Your task to perform on an android device: turn off improve location accuracy Image 0: 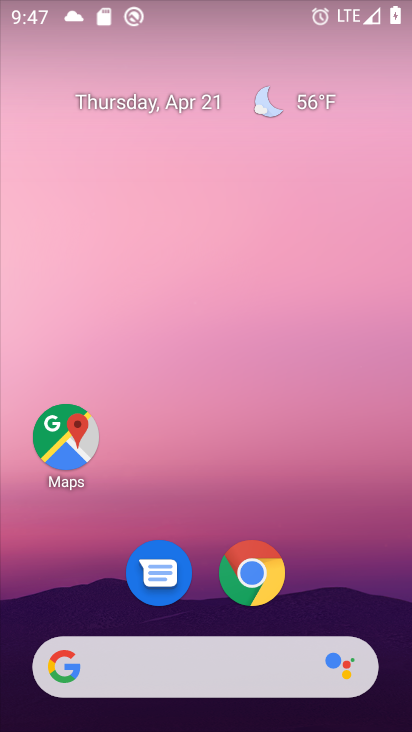
Step 0: drag from (196, 494) to (224, 4)
Your task to perform on an android device: turn off improve location accuracy Image 1: 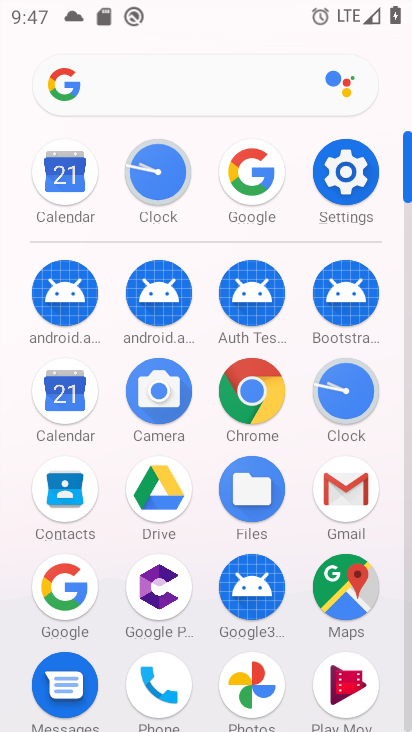
Step 1: click (349, 172)
Your task to perform on an android device: turn off improve location accuracy Image 2: 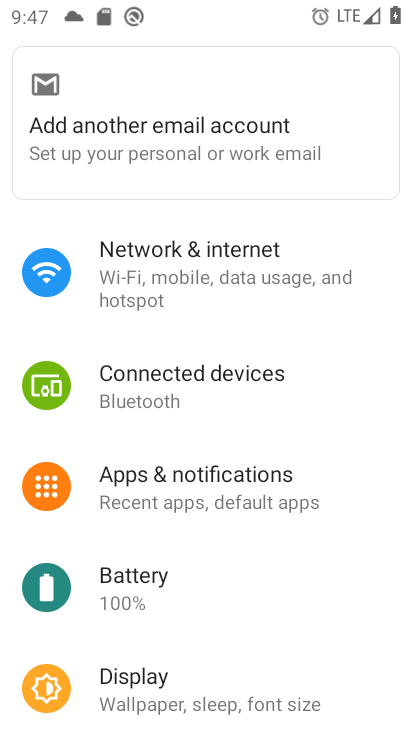
Step 2: drag from (180, 428) to (213, 291)
Your task to perform on an android device: turn off improve location accuracy Image 3: 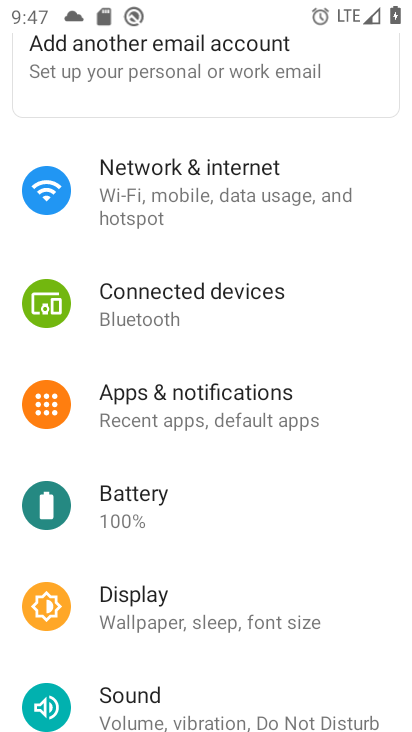
Step 3: drag from (195, 447) to (225, 320)
Your task to perform on an android device: turn off improve location accuracy Image 4: 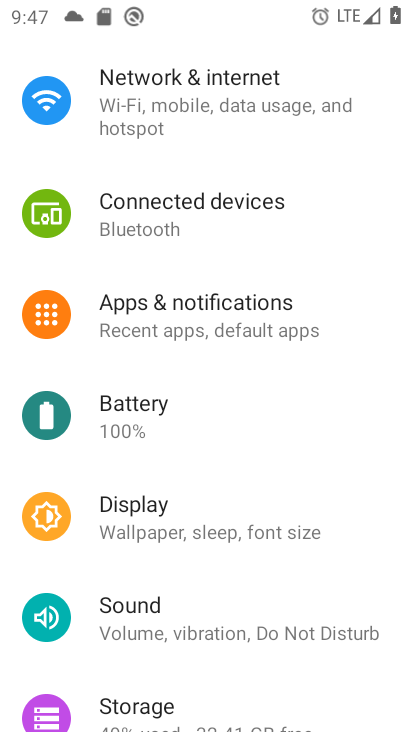
Step 4: drag from (202, 374) to (251, 249)
Your task to perform on an android device: turn off improve location accuracy Image 5: 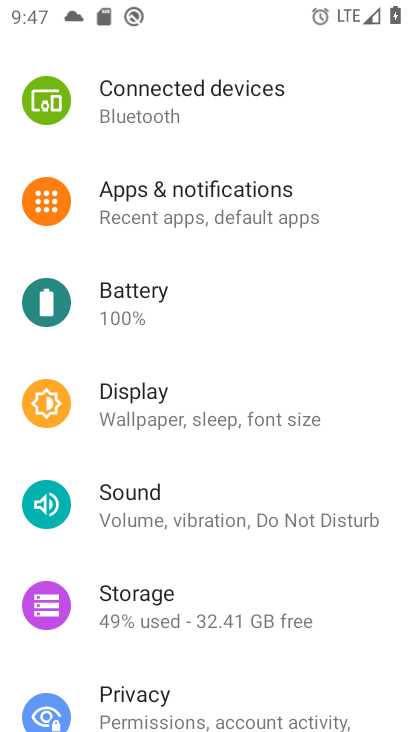
Step 5: drag from (170, 335) to (257, 230)
Your task to perform on an android device: turn off improve location accuracy Image 6: 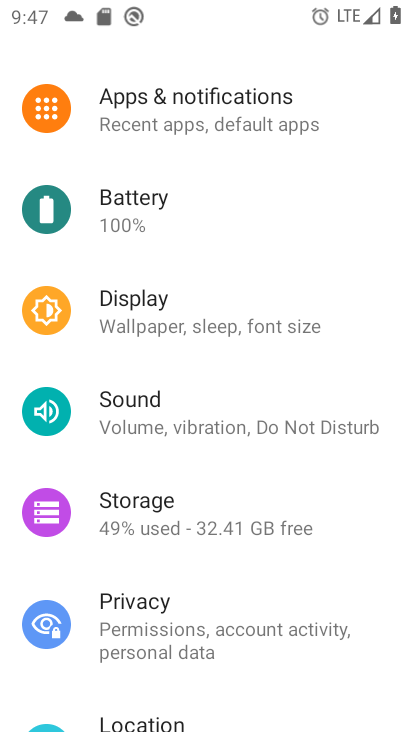
Step 6: drag from (210, 288) to (292, 166)
Your task to perform on an android device: turn off improve location accuracy Image 7: 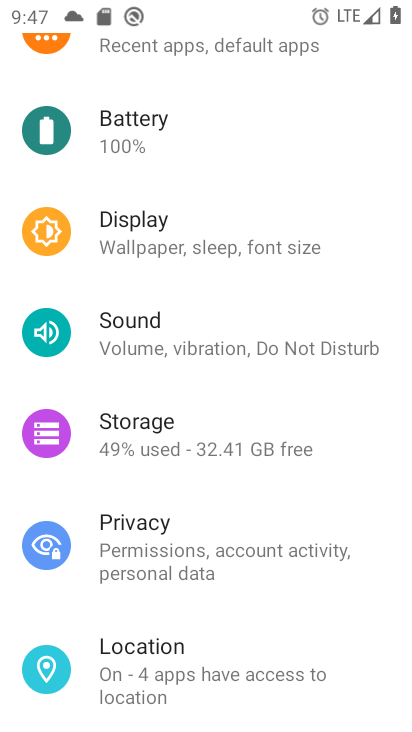
Step 7: drag from (196, 295) to (298, 164)
Your task to perform on an android device: turn off improve location accuracy Image 8: 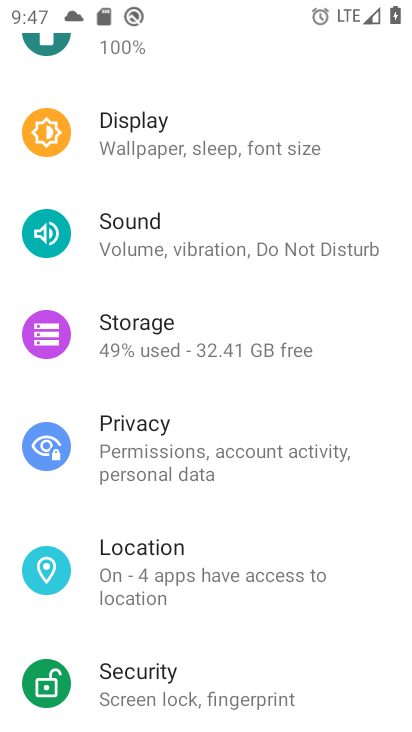
Step 8: click (168, 573)
Your task to perform on an android device: turn off improve location accuracy Image 9: 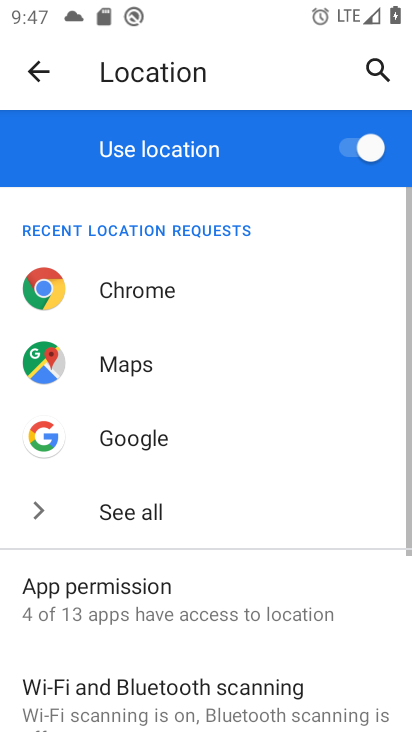
Step 9: drag from (262, 565) to (293, 402)
Your task to perform on an android device: turn off improve location accuracy Image 10: 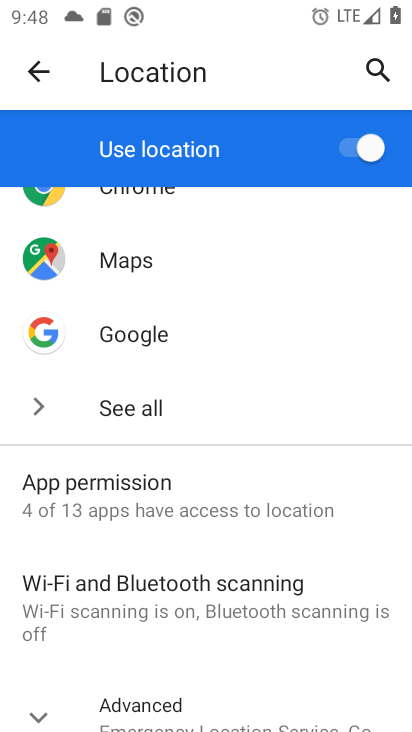
Step 10: drag from (226, 622) to (285, 444)
Your task to perform on an android device: turn off improve location accuracy Image 11: 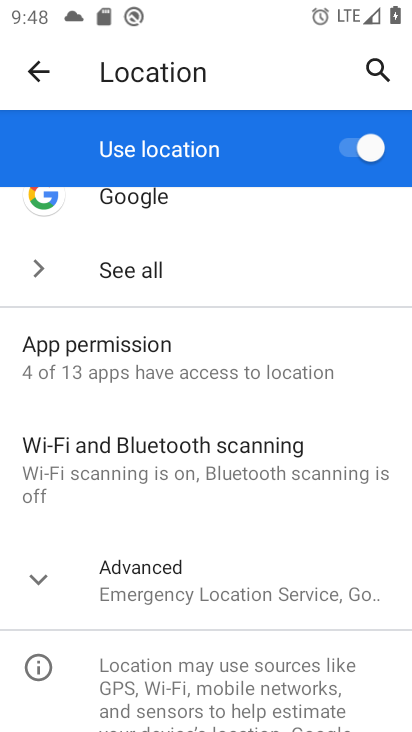
Step 11: click (183, 597)
Your task to perform on an android device: turn off improve location accuracy Image 12: 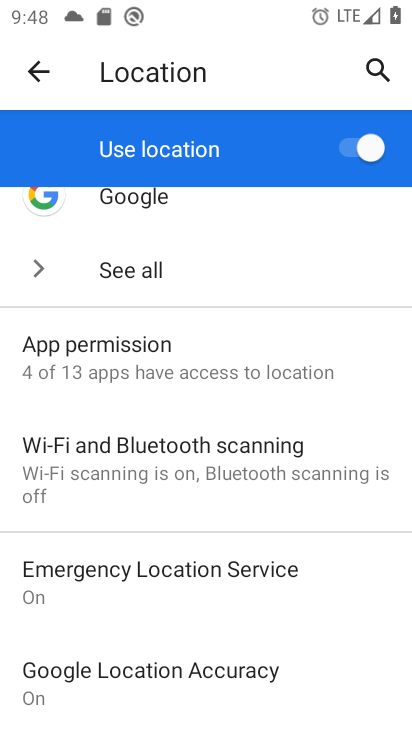
Step 12: drag from (188, 619) to (268, 478)
Your task to perform on an android device: turn off improve location accuracy Image 13: 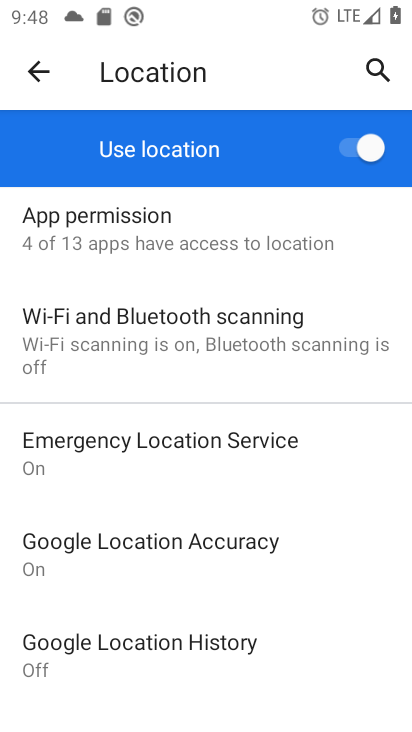
Step 13: drag from (193, 594) to (266, 458)
Your task to perform on an android device: turn off improve location accuracy Image 14: 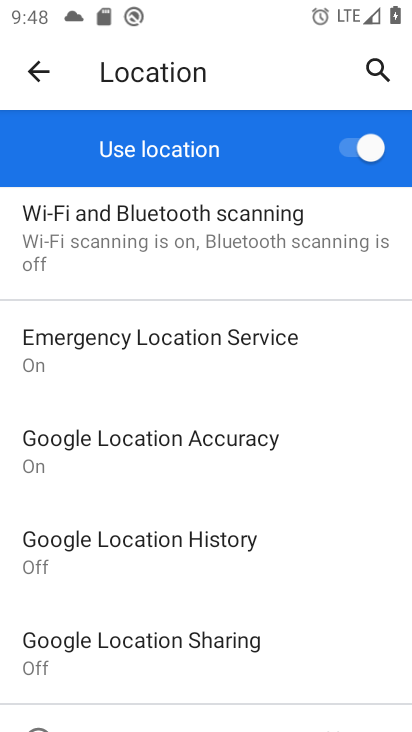
Step 14: click (223, 442)
Your task to perform on an android device: turn off improve location accuracy Image 15: 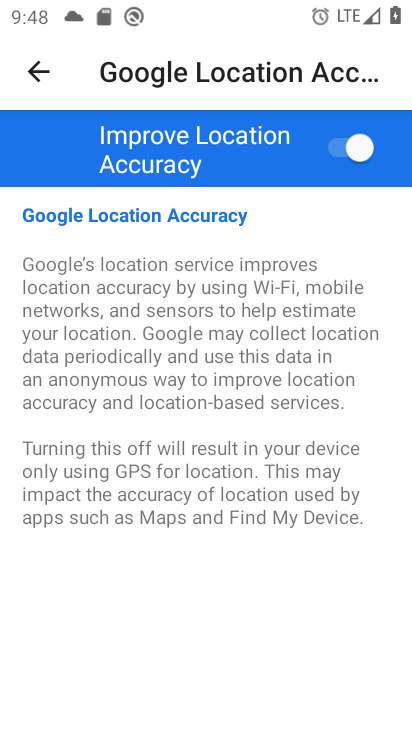
Step 15: click (361, 150)
Your task to perform on an android device: turn off improve location accuracy Image 16: 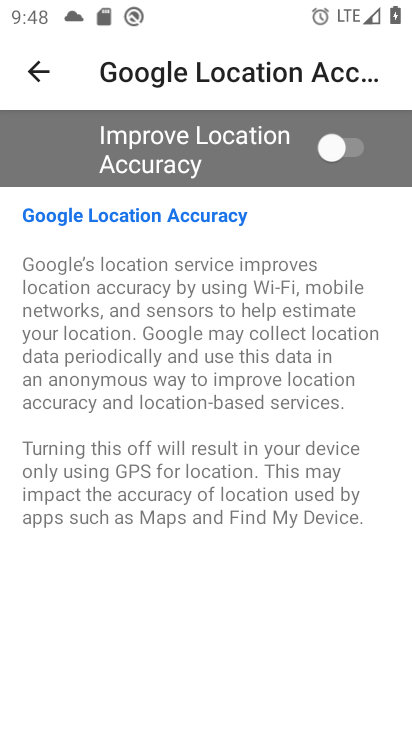
Step 16: task complete